Your task to perform on an android device: Open the web browser Image 0: 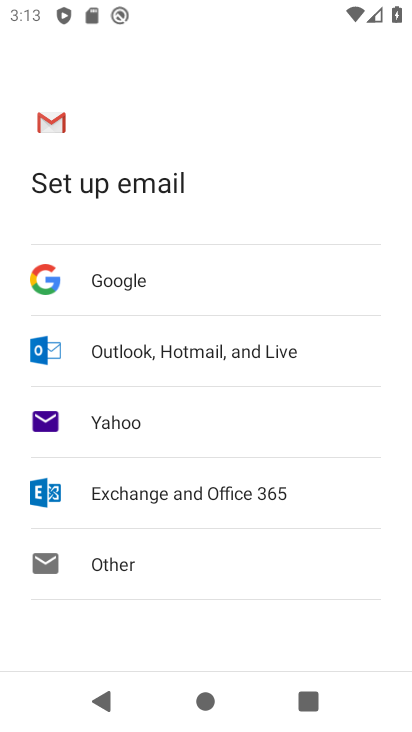
Step 0: press home button
Your task to perform on an android device: Open the web browser Image 1: 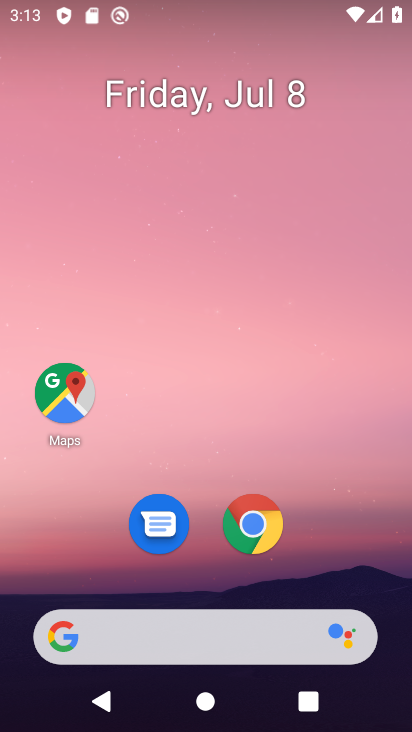
Step 1: click (135, 638)
Your task to perform on an android device: Open the web browser Image 2: 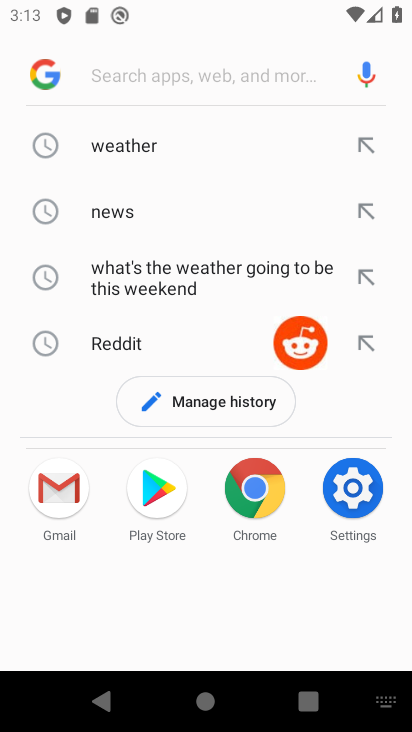
Step 2: task complete